Your task to perform on an android device: Open accessibility settings Image 0: 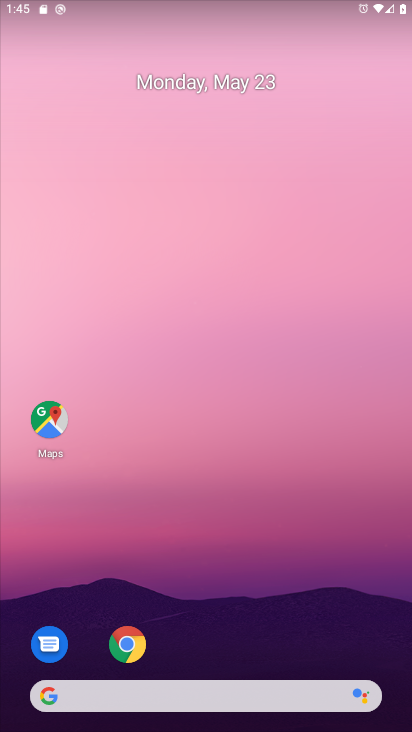
Step 0: drag from (220, 628) to (157, 257)
Your task to perform on an android device: Open accessibility settings Image 1: 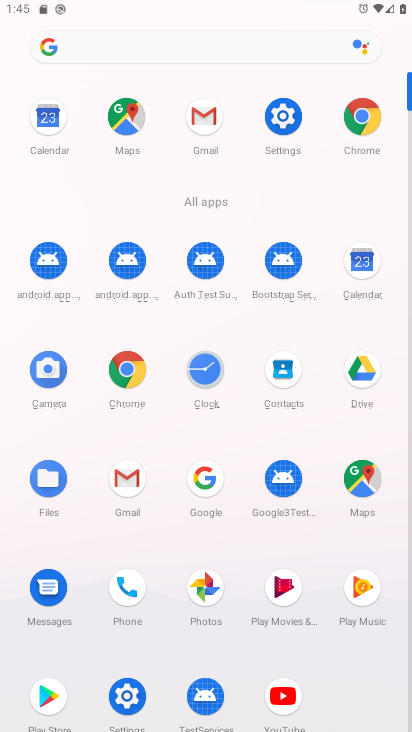
Step 1: click (278, 122)
Your task to perform on an android device: Open accessibility settings Image 2: 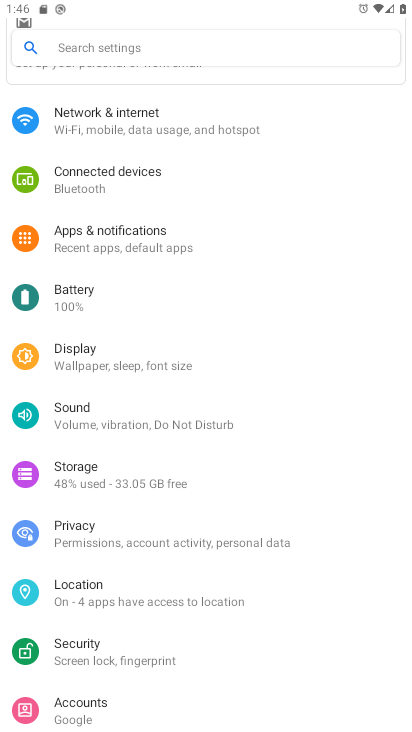
Step 2: drag from (131, 648) to (153, 296)
Your task to perform on an android device: Open accessibility settings Image 3: 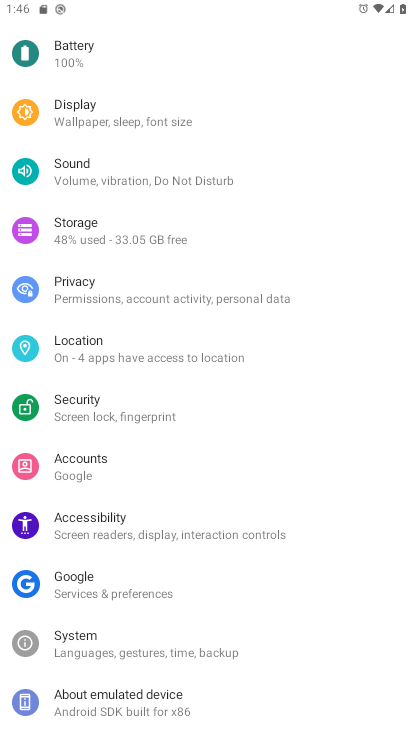
Step 3: click (118, 685)
Your task to perform on an android device: Open accessibility settings Image 4: 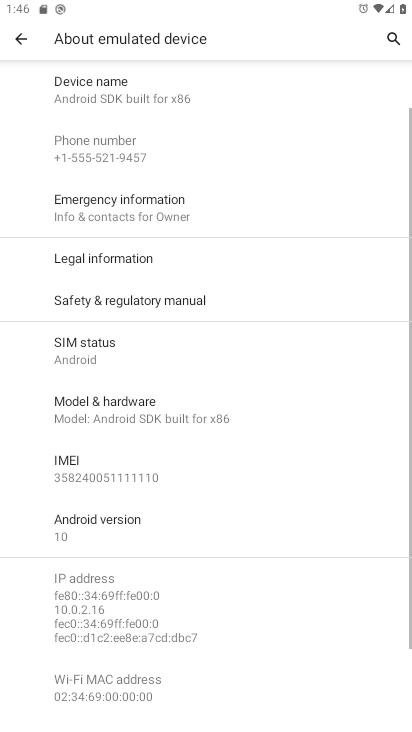
Step 4: task complete